Your task to perform on an android device: change your default location settings in chrome Image 0: 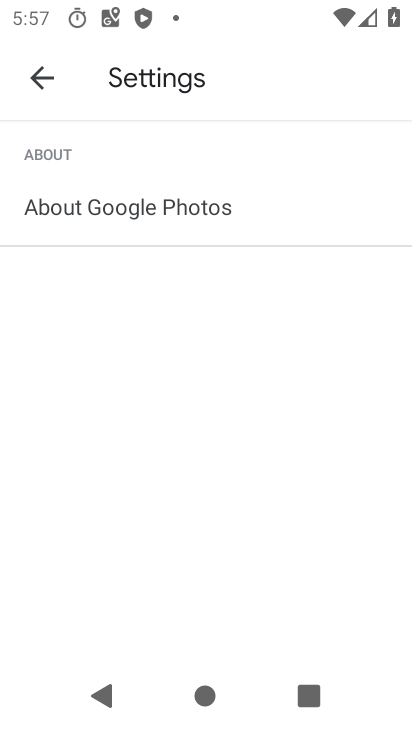
Step 0: press home button
Your task to perform on an android device: change your default location settings in chrome Image 1: 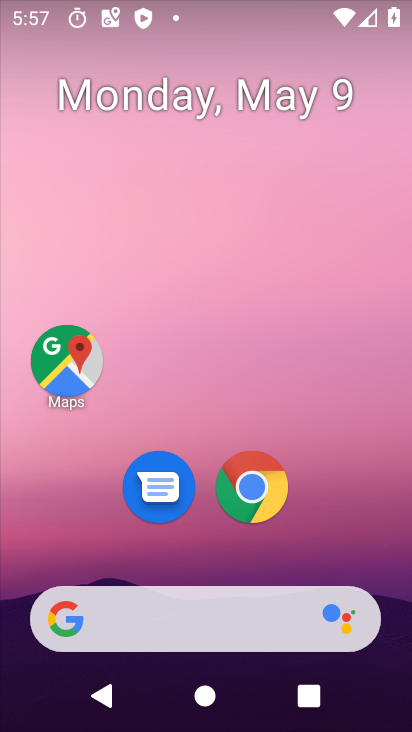
Step 1: click (251, 519)
Your task to perform on an android device: change your default location settings in chrome Image 2: 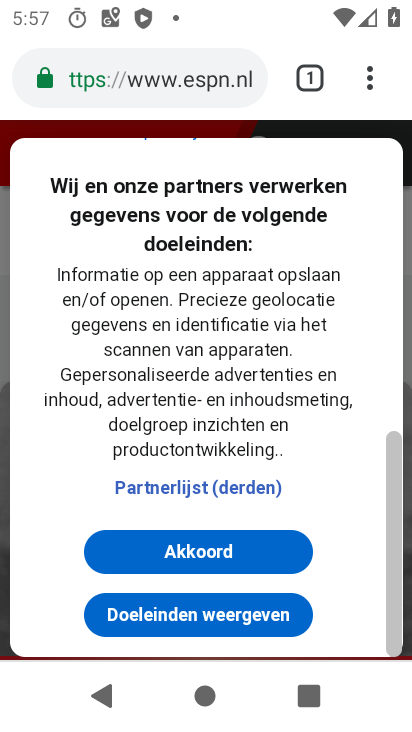
Step 2: click (368, 75)
Your task to perform on an android device: change your default location settings in chrome Image 3: 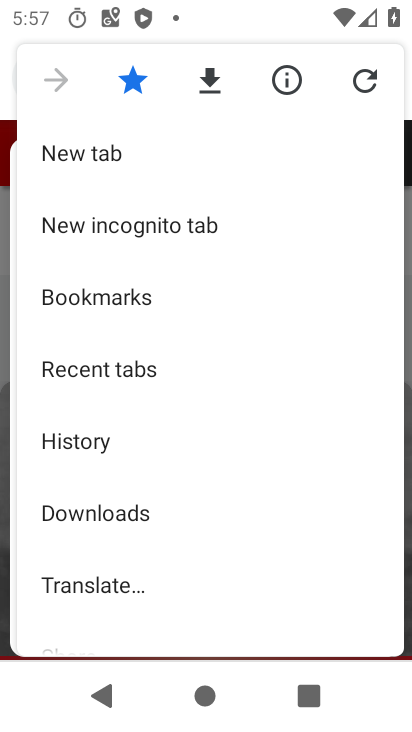
Step 3: drag from (150, 577) to (192, 309)
Your task to perform on an android device: change your default location settings in chrome Image 4: 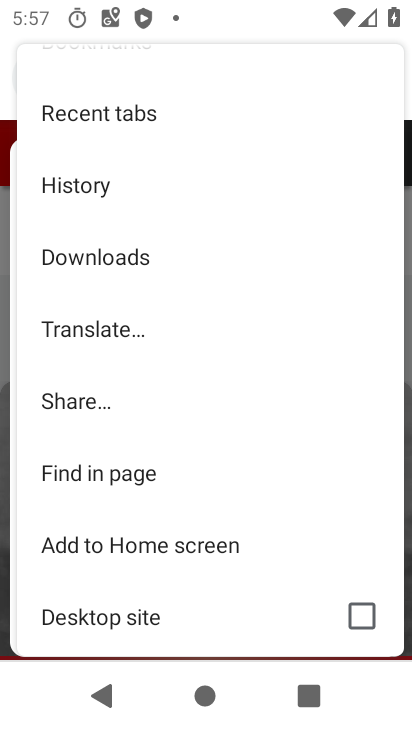
Step 4: drag from (143, 616) to (140, 376)
Your task to perform on an android device: change your default location settings in chrome Image 5: 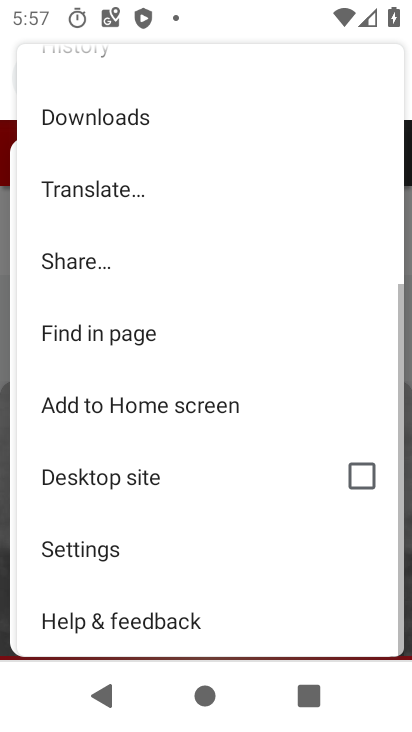
Step 5: click (103, 559)
Your task to perform on an android device: change your default location settings in chrome Image 6: 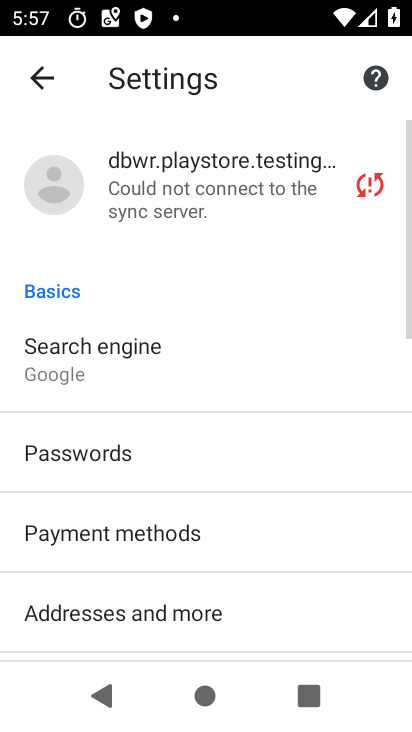
Step 6: drag from (106, 563) to (142, 325)
Your task to perform on an android device: change your default location settings in chrome Image 7: 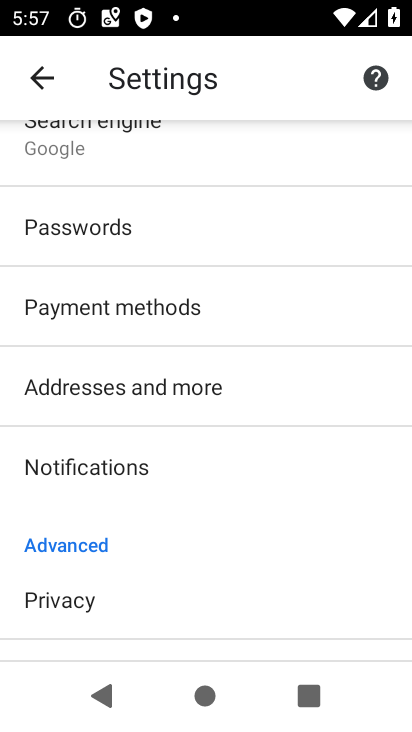
Step 7: drag from (204, 583) to (203, 227)
Your task to perform on an android device: change your default location settings in chrome Image 8: 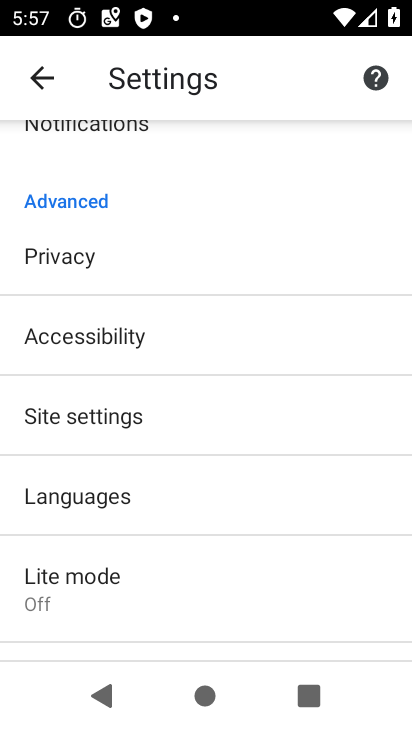
Step 8: click (110, 420)
Your task to perform on an android device: change your default location settings in chrome Image 9: 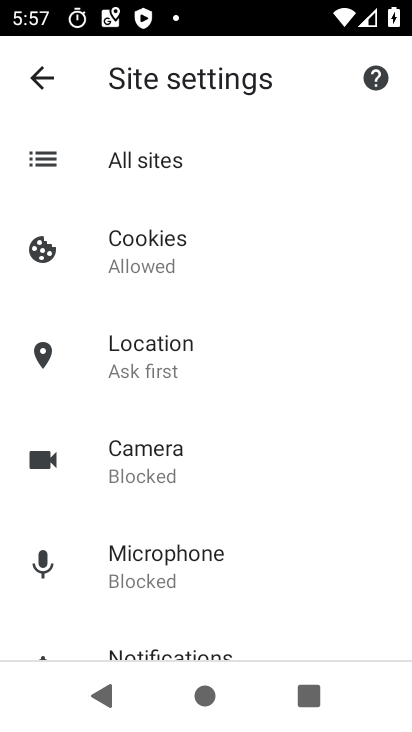
Step 9: click (156, 360)
Your task to perform on an android device: change your default location settings in chrome Image 10: 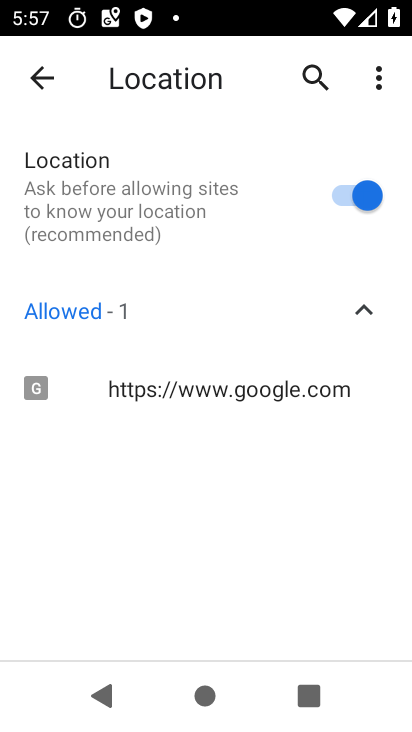
Step 10: click (346, 192)
Your task to perform on an android device: change your default location settings in chrome Image 11: 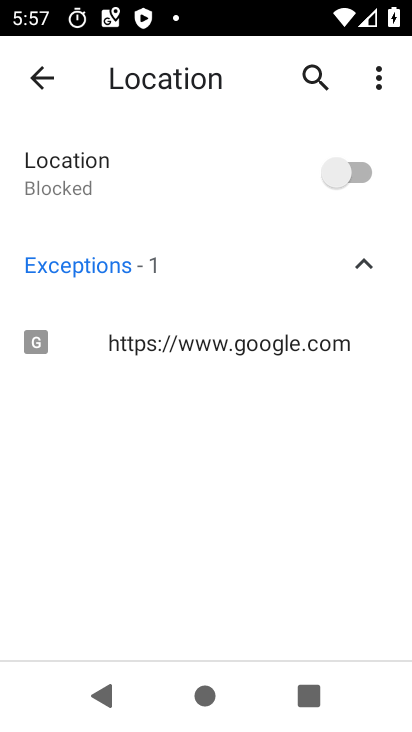
Step 11: task complete